Your task to perform on an android device: turn off javascript in the chrome app Image 0: 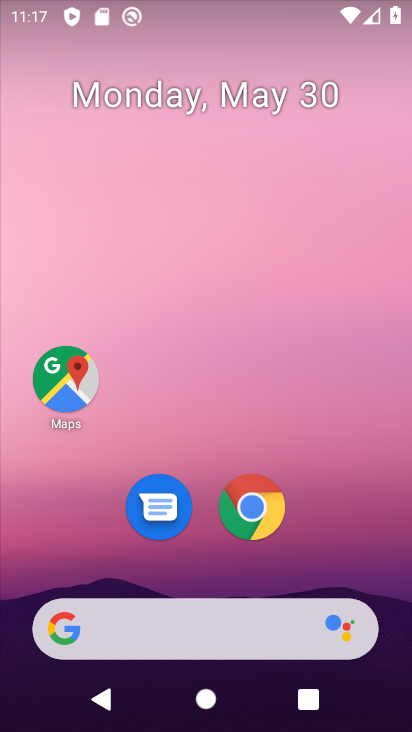
Step 0: click (256, 532)
Your task to perform on an android device: turn off javascript in the chrome app Image 1: 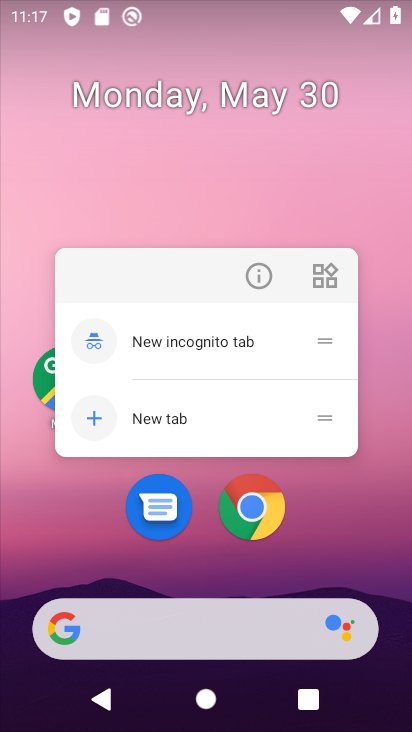
Step 1: click (257, 508)
Your task to perform on an android device: turn off javascript in the chrome app Image 2: 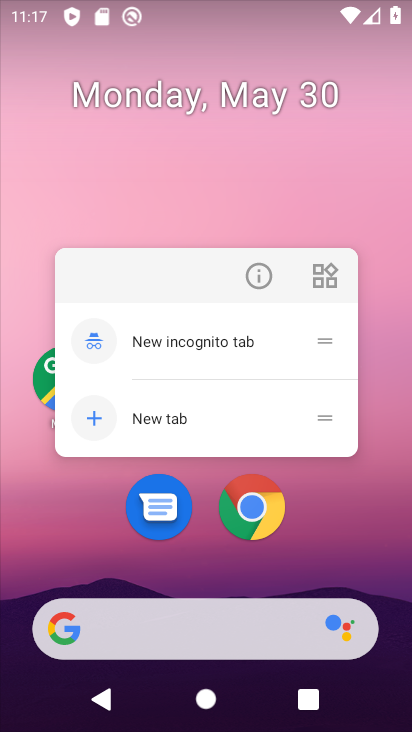
Step 2: click (257, 507)
Your task to perform on an android device: turn off javascript in the chrome app Image 3: 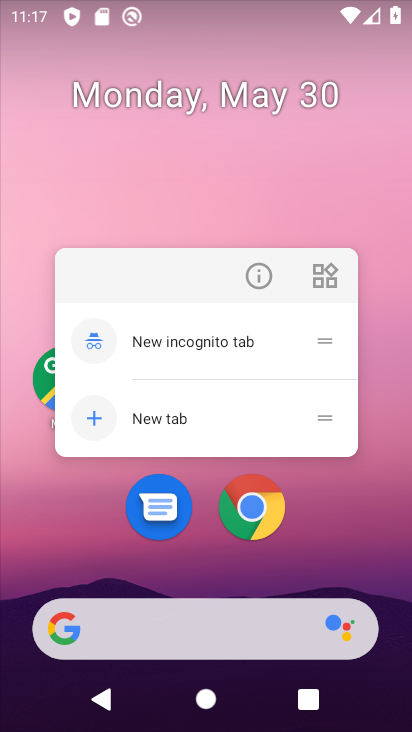
Step 3: click (259, 506)
Your task to perform on an android device: turn off javascript in the chrome app Image 4: 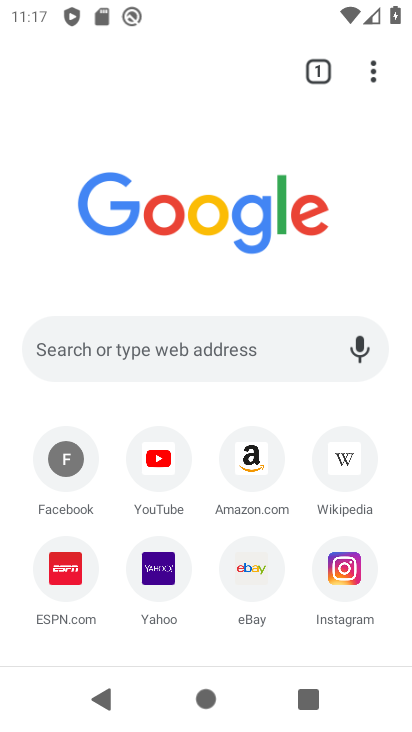
Step 4: drag from (368, 68) to (156, 493)
Your task to perform on an android device: turn off javascript in the chrome app Image 5: 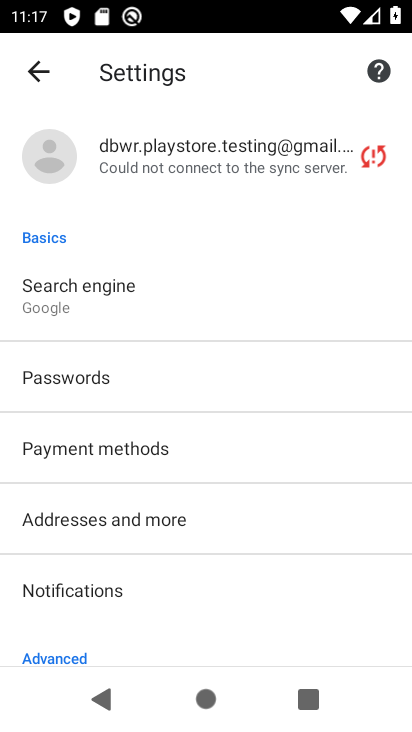
Step 5: drag from (357, 655) to (311, 418)
Your task to perform on an android device: turn off javascript in the chrome app Image 6: 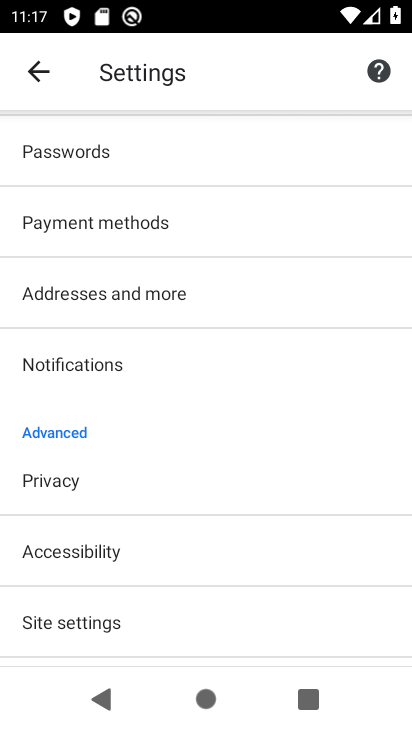
Step 6: click (168, 625)
Your task to perform on an android device: turn off javascript in the chrome app Image 7: 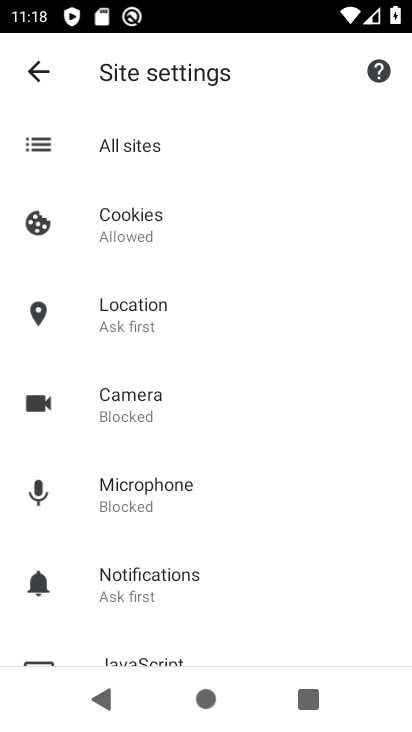
Step 7: click (159, 656)
Your task to perform on an android device: turn off javascript in the chrome app Image 8: 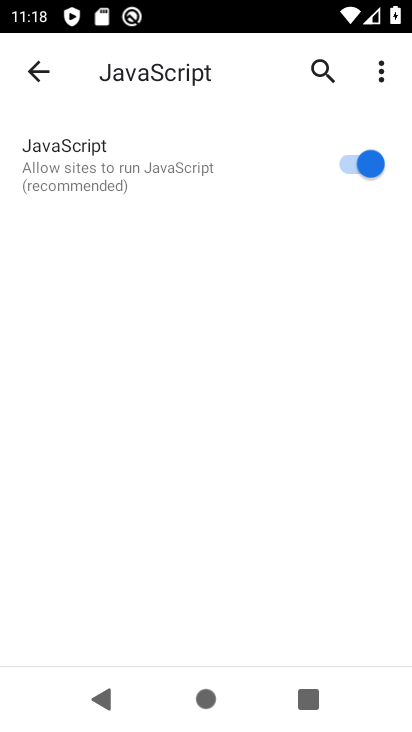
Step 8: click (343, 162)
Your task to perform on an android device: turn off javascript in the chrome app Image 9: 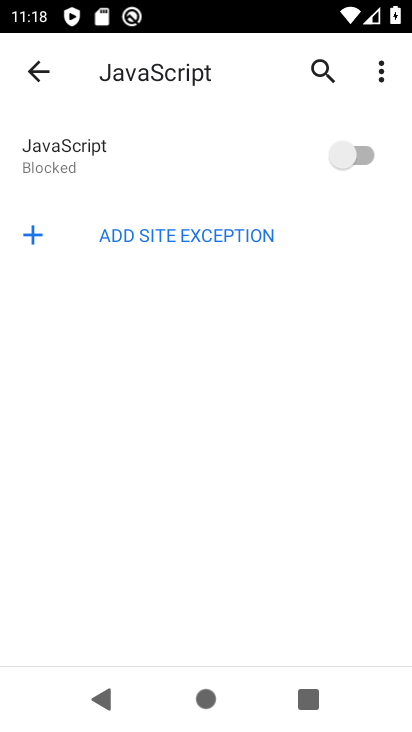
Step 9: task complete